Your task to perform on an android device: see creations saved in the google photos Image 0: 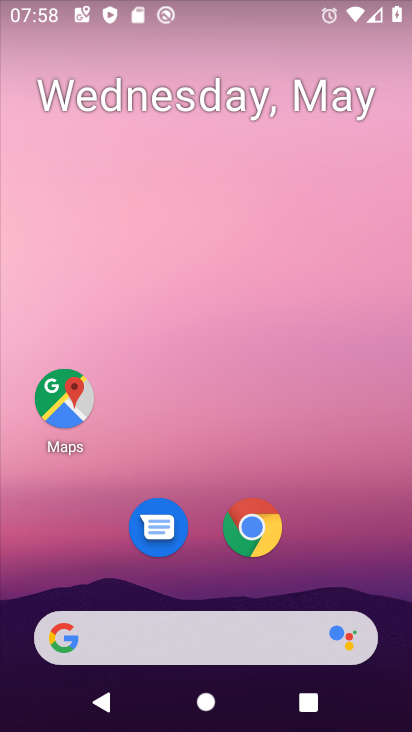
Step 0: drag from (326, 552) to (341, 82)
Your task to perform on an android device: see creations saved in the google photos Image 1: 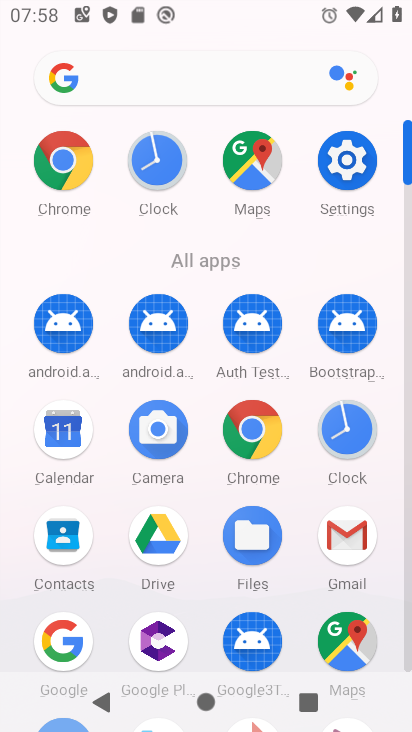
Step 1: click (406, 663)
Your task to perform on an android device: see creations saved in the google photos Image 2: 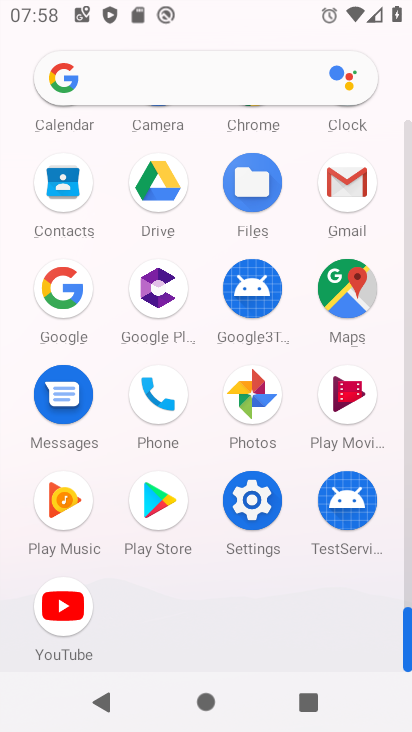
Step 2: click (263, 417)
Your task to perform on an android device: see creations saved in the google photos Image 3: 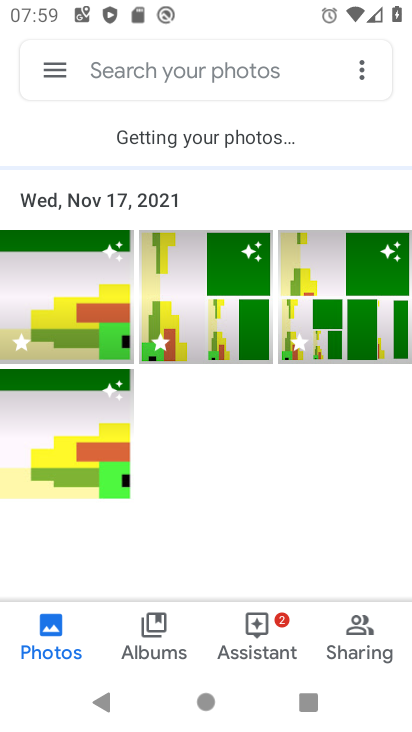
Step 3: click (334, 283)
Your task to perform on an android device: see creations saved in the google photos Image 4: 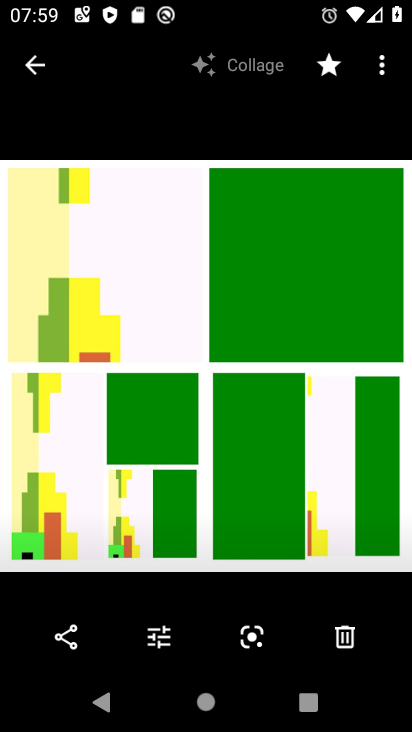
Step 4: drag from (334, 283) to (273, 730)
Your task to perform on an android device: see creations saved in the google photos Image 5: 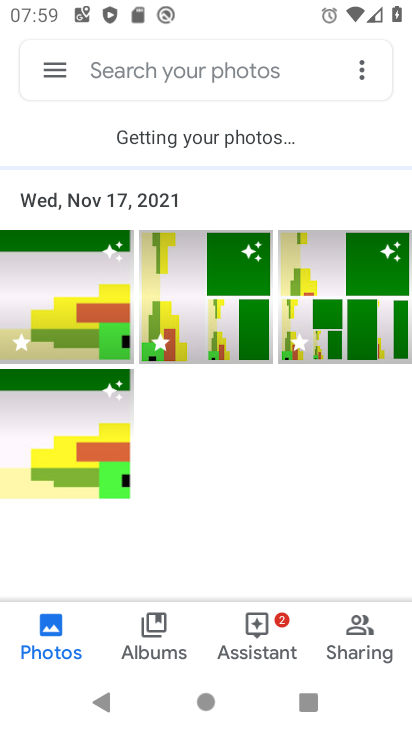
Step 5: click (188, 69)
Your task to perform on an android device: see creations saved in the google photos Image 6: 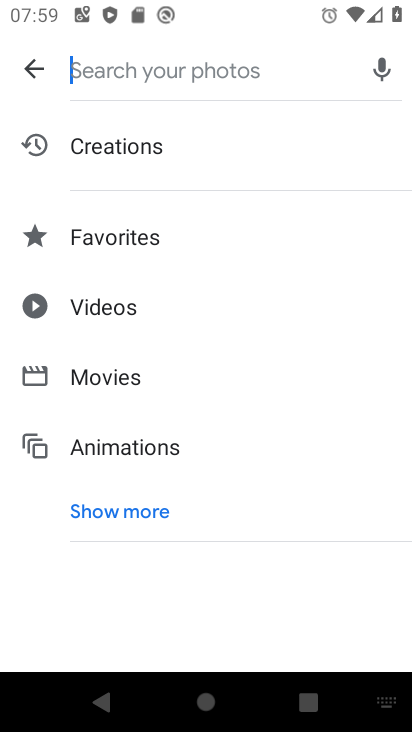
Step 6: click (62, 518)
Your task to perform on an android device: see creations saved in the google photos Image 7: 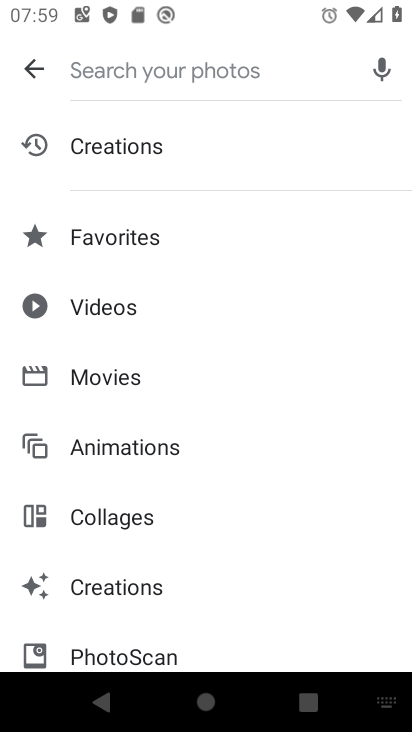
Step 7: click (99, 584)
Your task to perform on an android device: see creations saved in the google photos Image 8: 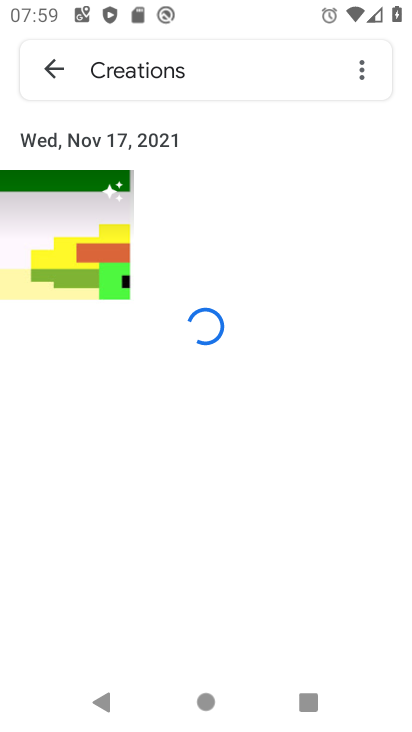
Step 8: task complete